Your task to perform on an android device: turn on data saver in the chrome app Image 0: 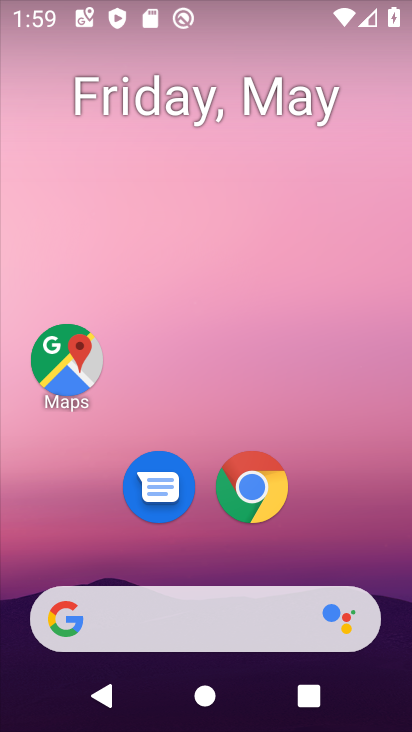
Step 0: click (260, 491)
Your task to perform on an android device: turn on data saver in the chrome app Image 1: 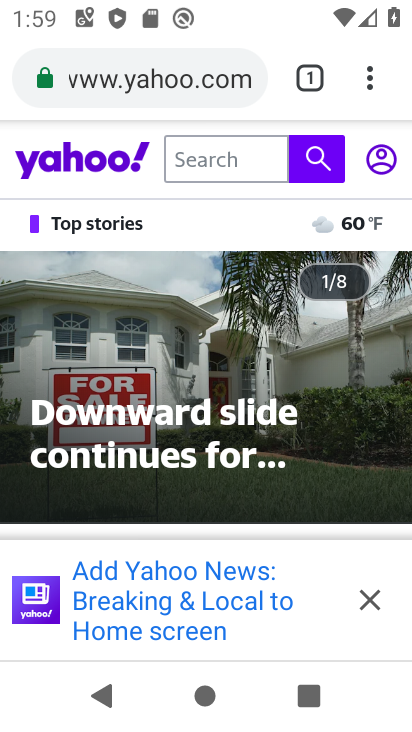
Step 1: click (373, 80)
Your task to perform on an android device: turn on data saver in the chrome app Image 2: 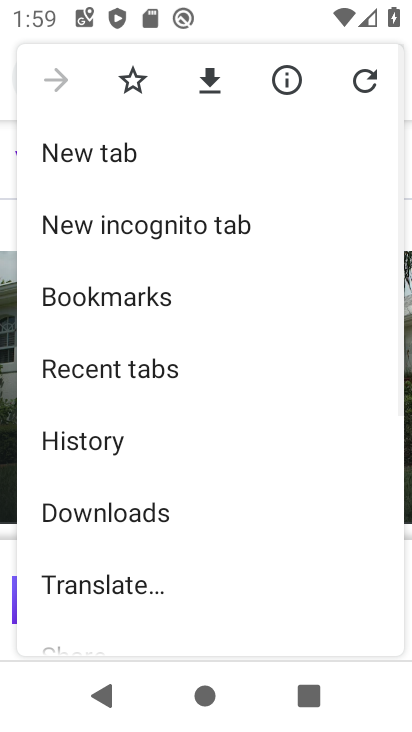
Step 2: drag from (196, 535) to (190, 147)
Your task to perform on an android device: turn on data saver in the chrome app Image 3: 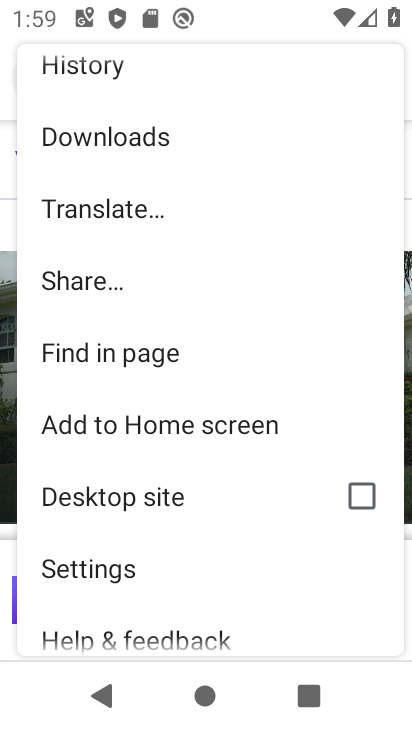
Step 3: drag from (191, 531) to (191, 255)
Your task to perform on an android device: turn on data saver in the chrome app Image 4: 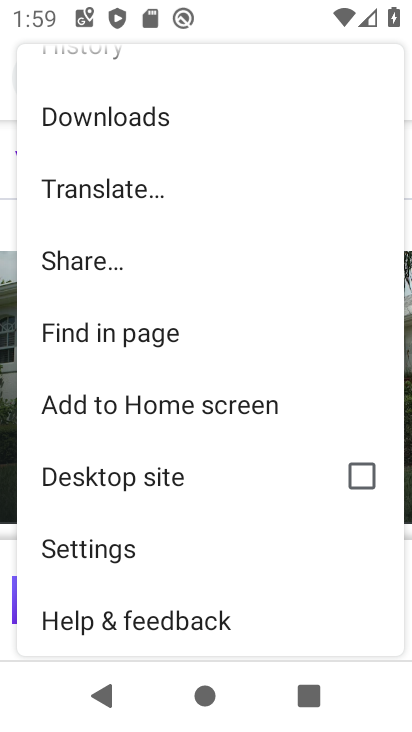
Step 4: click (89, 551)
Your task to perform on an android device: turn on data saver in the chrome app Image 5: 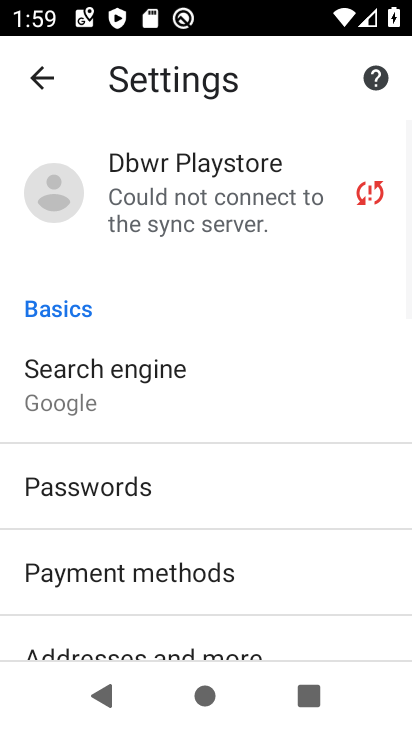
Step 5: drag from (283, 610) to (249, 153)
Your task to perform on an android device: turn on data saver in the chrome app Image 6: 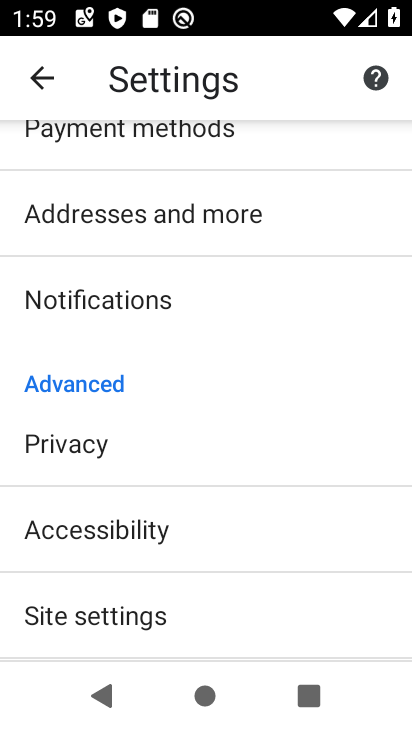
Step 6: drag from (214, 536) to (206, 195)
Your task to perform on an android device: turn on data saver in the chrome app Image 7: 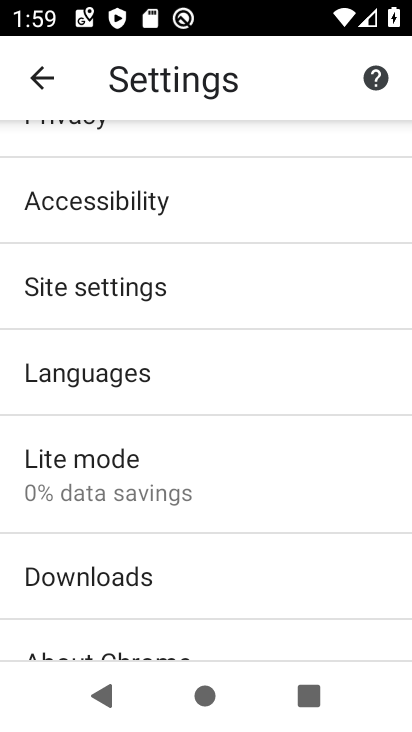
Step 7: click (71, 479)
Your task to perform on an android device: turn on data saver in the chrome app Image 8: 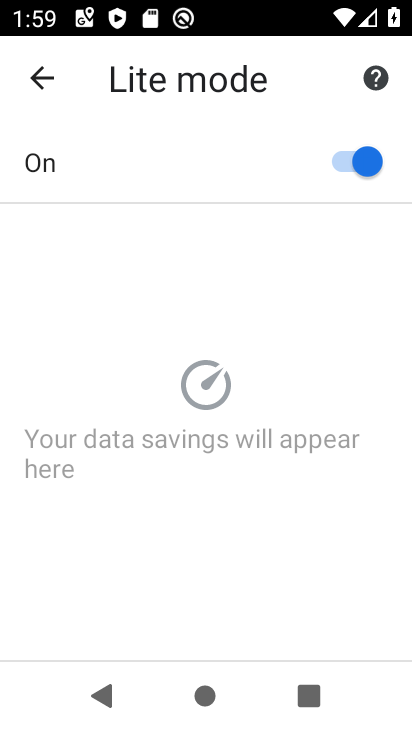
Step 8: task complete